Your task to perform on an android device: turn off translation in the chrome app Image 0: 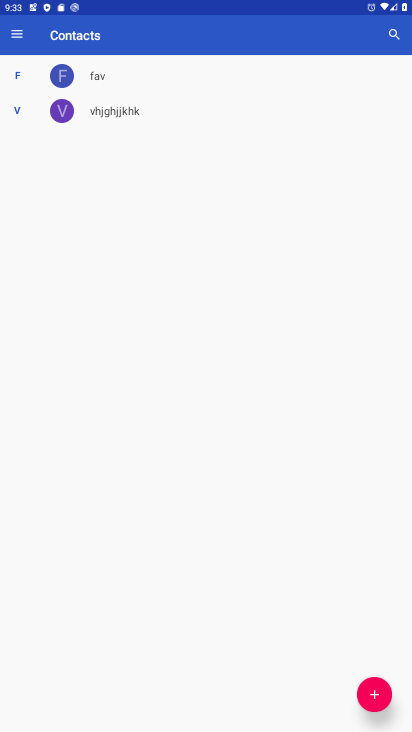
Step 0: press home button
Your task to perform on an android device: turn off translation in the chrome app Image 1: 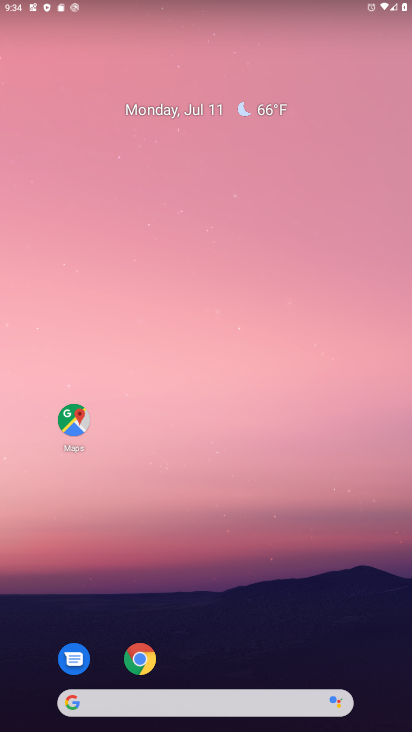
Step 1: drag from (366, 633) to (347, 150)
Your task to perform on an android device: turn off translation in the chrome app Image 2: 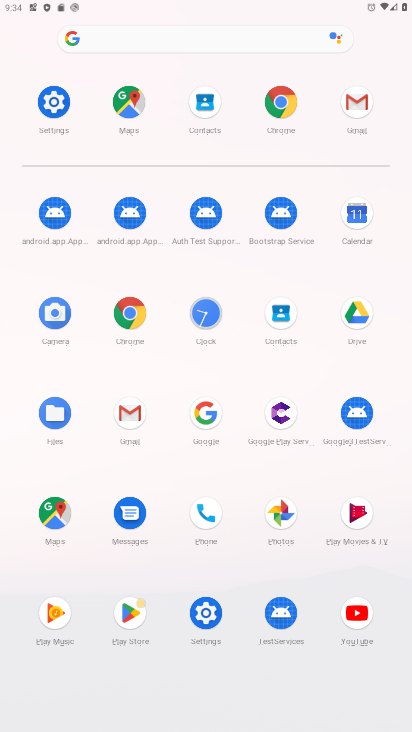
Step 2: click (138, 315)
Your task to perform on an android device: turn off translation in the chrome app Image 3: 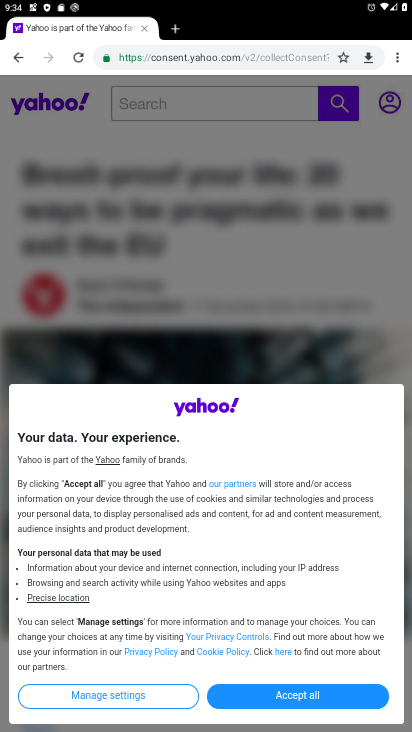
Step 3: click (398, 57)
Your task to perform on an android device: turn off translation in the chrome app Image 4: 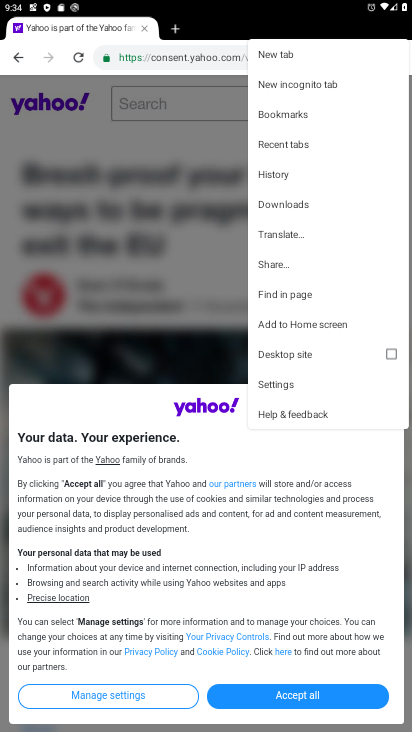
Step 4: click (290, 381)
Your task to perform on an android device: turn off translation in the chrome app Image 5: 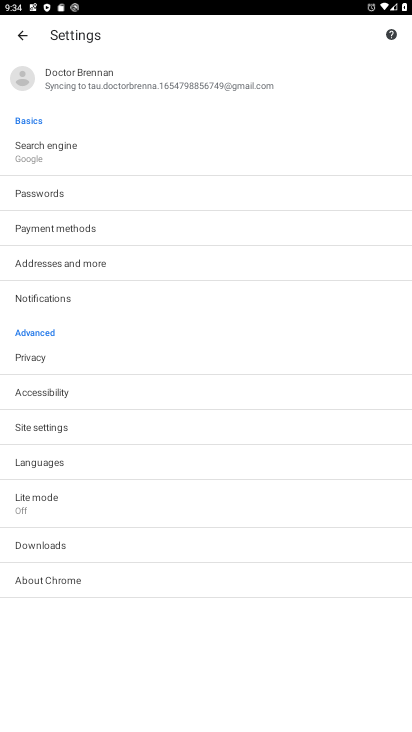
Step 5: click (207, 461)
Your task to perform on an android device: turn off translation in the chrome app Image 6: 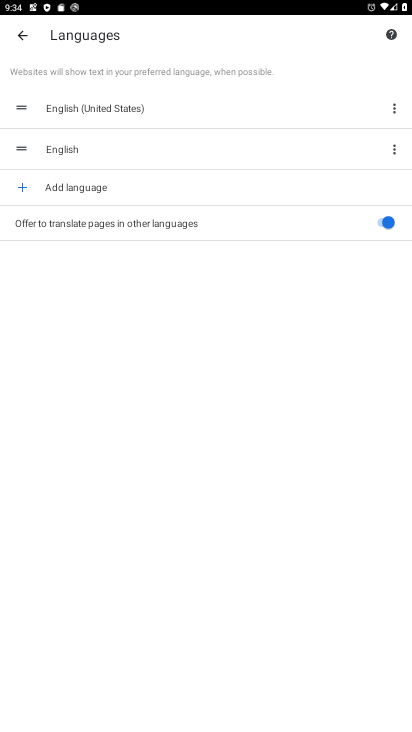
Step 6: click (384, 220)
Your task to perform on an android device: turn off translation in the chrome app Image 7: 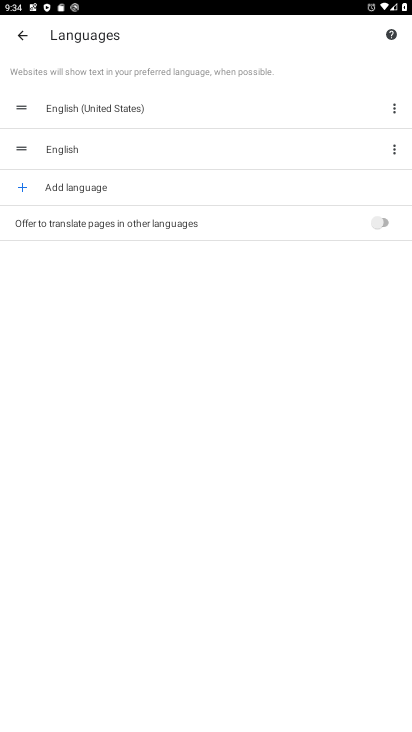
Step 7: task complete